Your task to perform on an android device: Go to Maps Image 0: 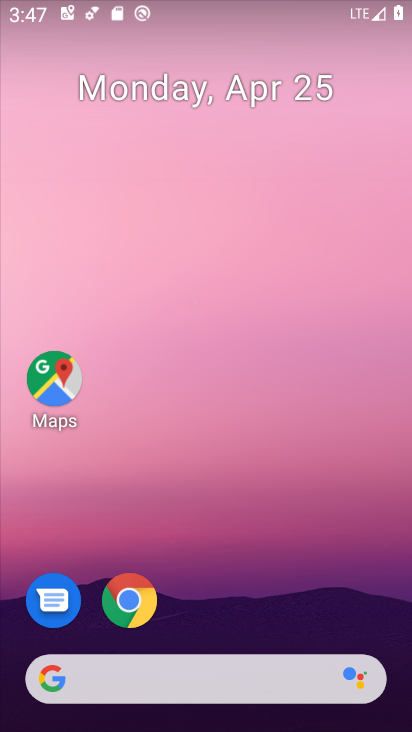
Step 0: drag from (269, 408) to (267, 7)
Your task to perform on an android device: Go to Maps Image 1: 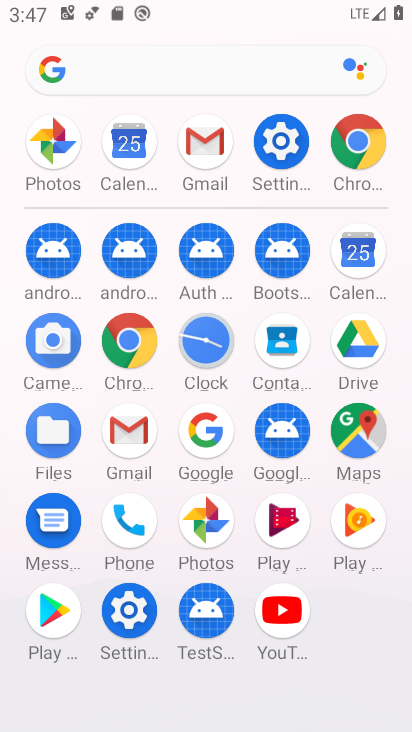
Step 1: click (360, 429)
Your task to perform on an android device: Go to Maps Image 2: 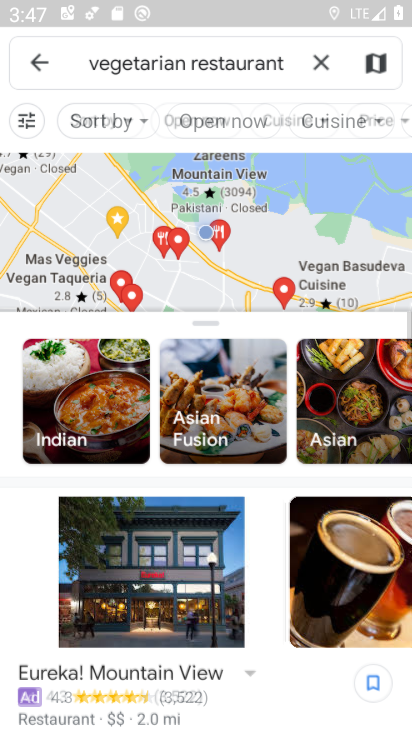
Step 2: click (33, 57)
Your task to perform on an android device: Go to Maps Image 3: 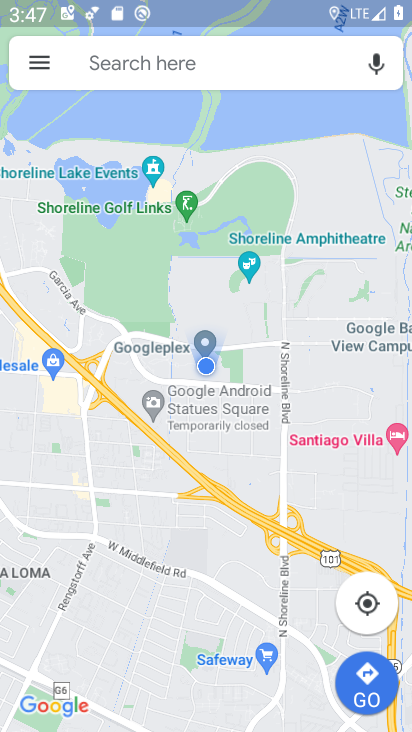
Step 3: task complete